Your task to perform on an android device: check storage Image 0: 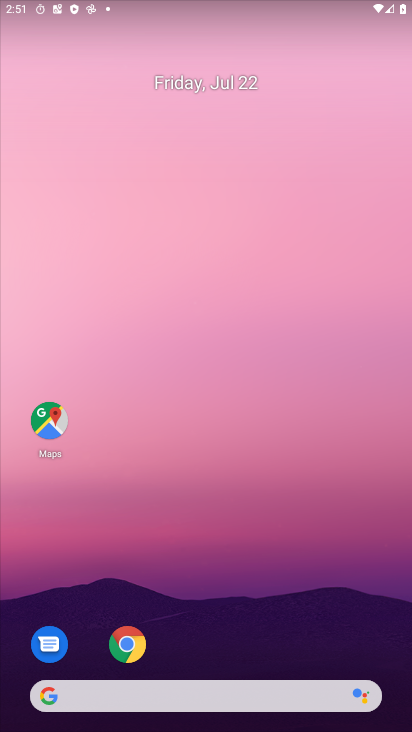
Step 0: drag from (252, 620) to (253, 227)
Your task to perform on an android device: check storage Image 1: 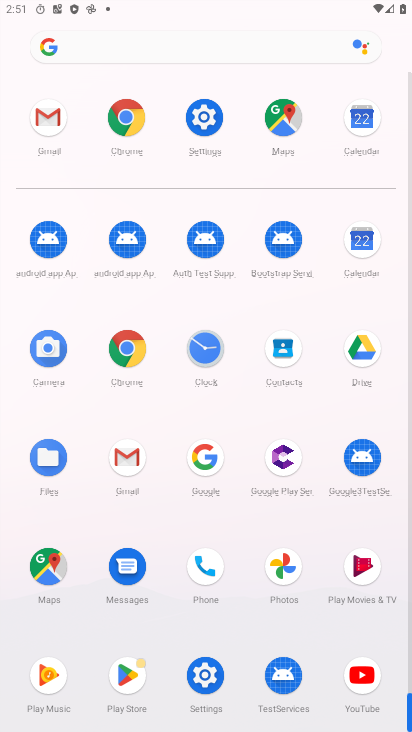
Step 1: click (223, 133)
Your task to perform on an android device: check storage Image 2: 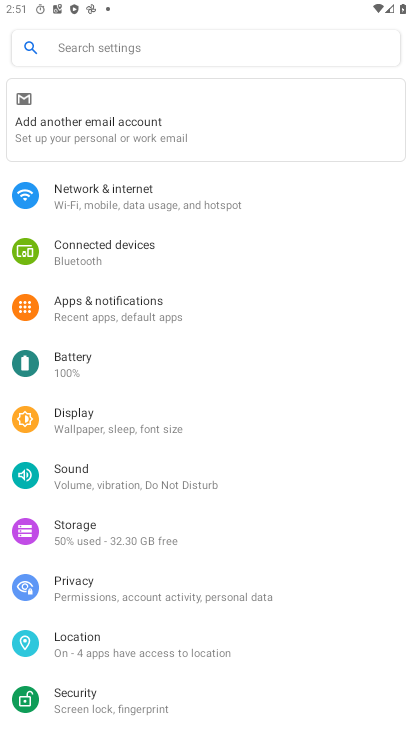
Step 2: click (79, 544)
Your task to perform on an android device: check storage Image 3: 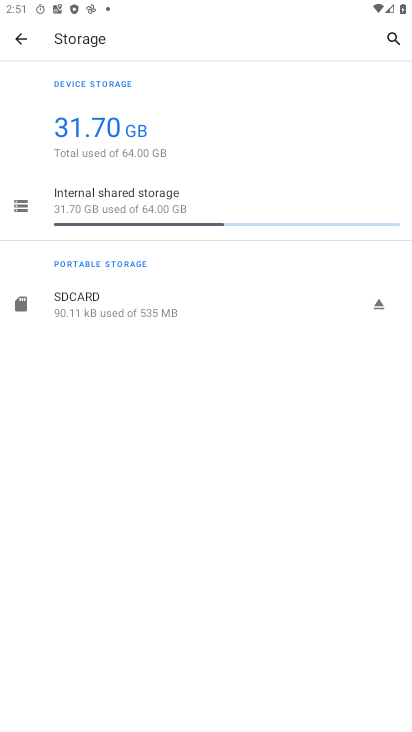
Step 3: click (183, 216)
Your task to perform on an android device: check storage Image 4: 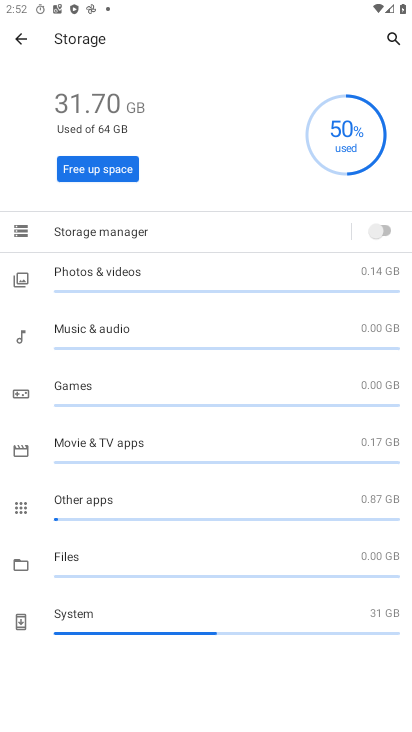
Step 4: task complete